Your task to perform on an android device: add a label to a message in the gmail app Image 0: 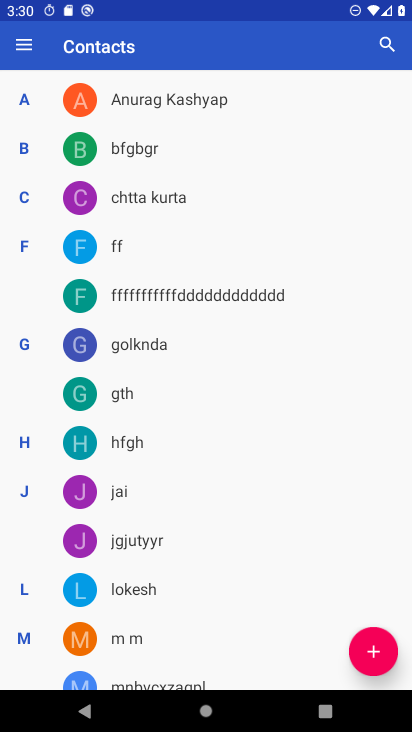
Step 0: press home button
Your task to perform on an android device: add a label to a message in the gmail app Image 1: 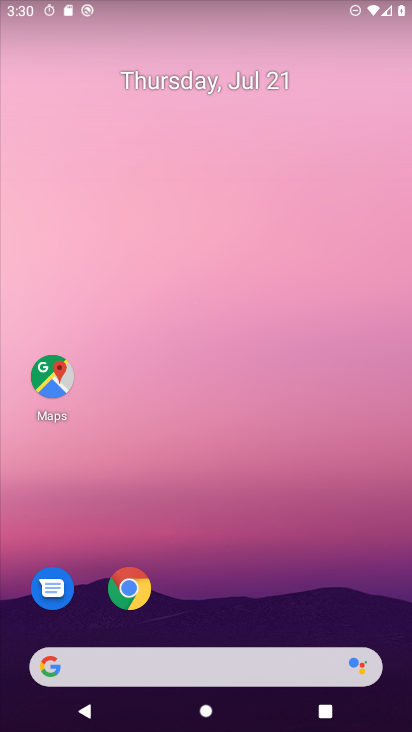
Step 1: drag from (240, 638) to (268, 131)
Your task to perform on an android device: add a label to a message in the gmail app Image 2: 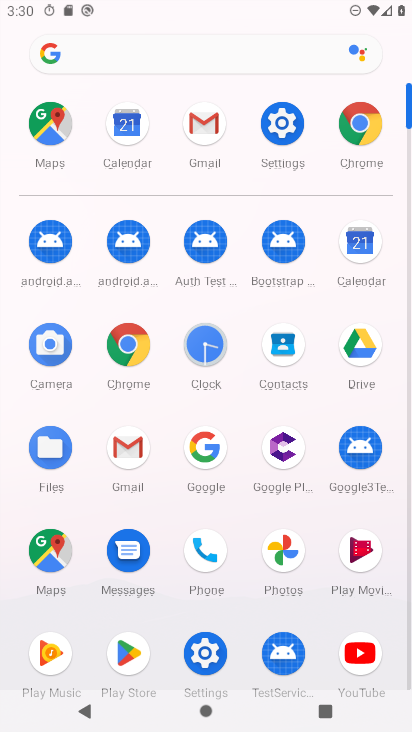
Step 2: click (138, 458)
Your task to perform on an android device: add a label to a message in the gmail app Image 3: 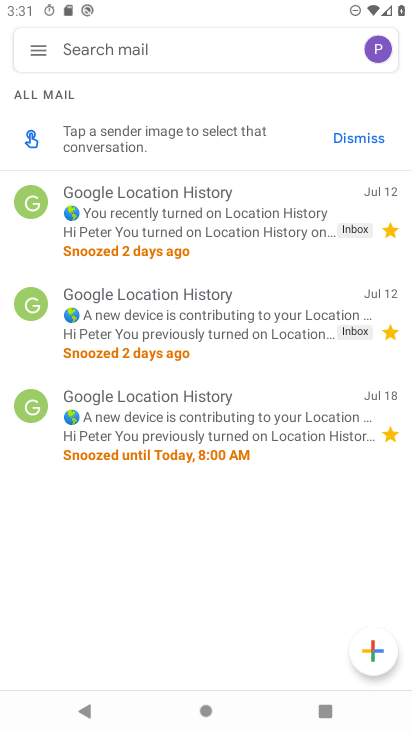
Step 3: click (158, 209)
Your task to perform on an android device: add a label to a message in the gmail app Image 4: 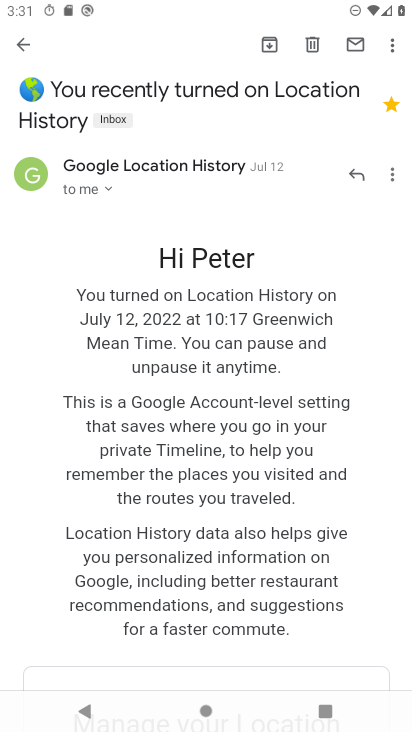
Step 4: click (396, 53)
Your task to perform on an android device: add a label to a message in the gmail app Image 5: 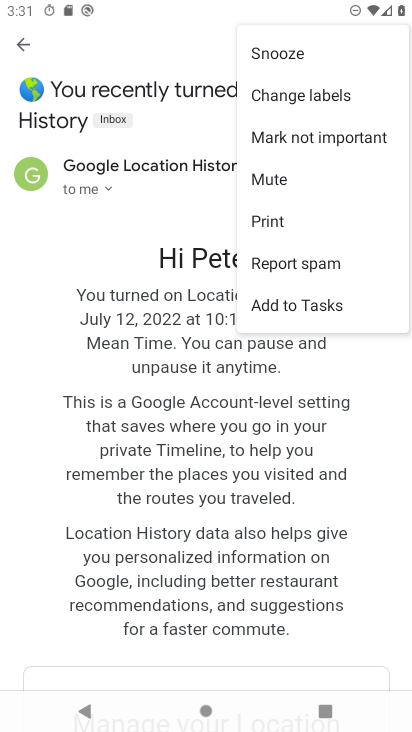
Step 5: click (307, 99)
Your task to perform on an android device: add a label to a message in the gmail app Image 6: 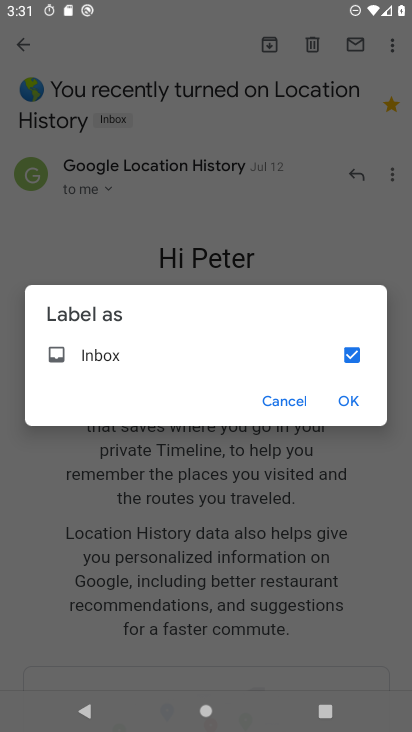
Step 6: click (361, 395)
Your task to perform on an android device: add a label to a message in the gmail app Image 7: 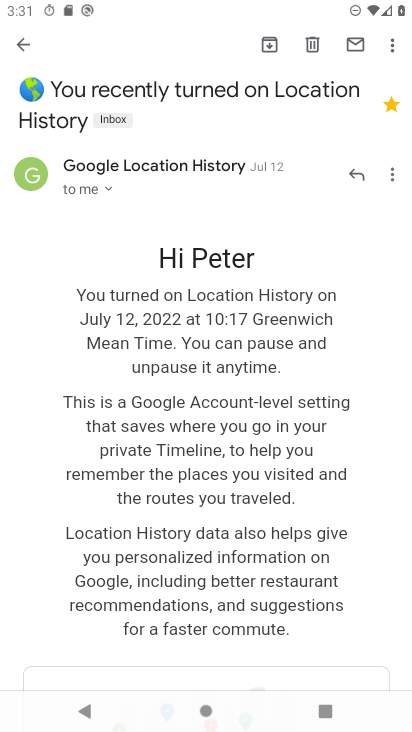
Step 7: task complete